Your task to perform on an android device: Do I have any events this weekend? Image 0: 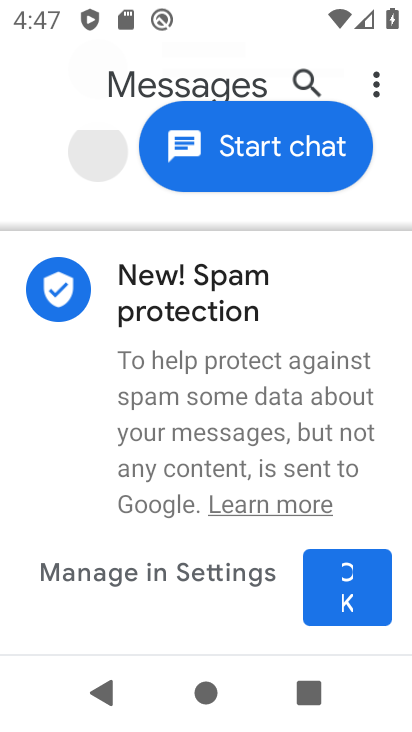
Step 0: press back button
Your task to perform on an android device: Do I have any events this weekend? Image 1: 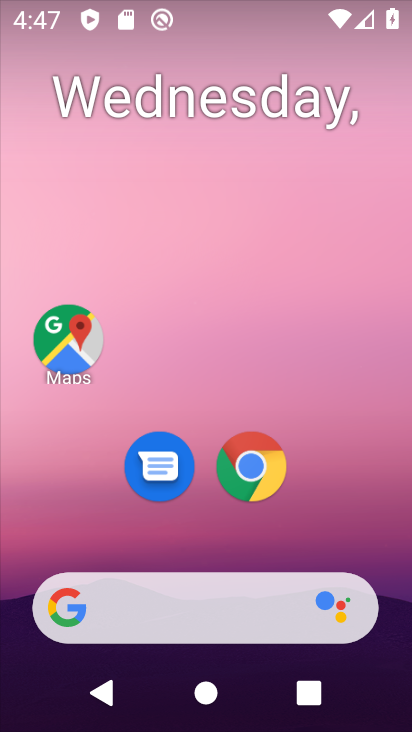
Step 1: drag from (341, 521) to (272, 26)
Your task to perform on an android device: Do I have any events this weekend? Image 2: 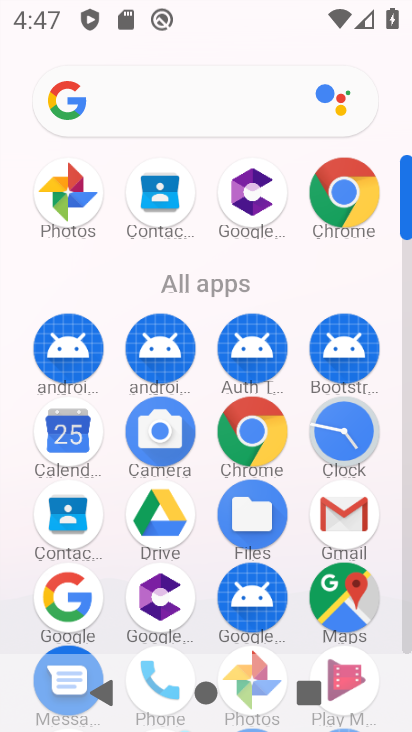
Step 2: drag from (18, 593) to (17, 306)
Your task to perform on an android device: Do I have any events this weekend? Image 3: 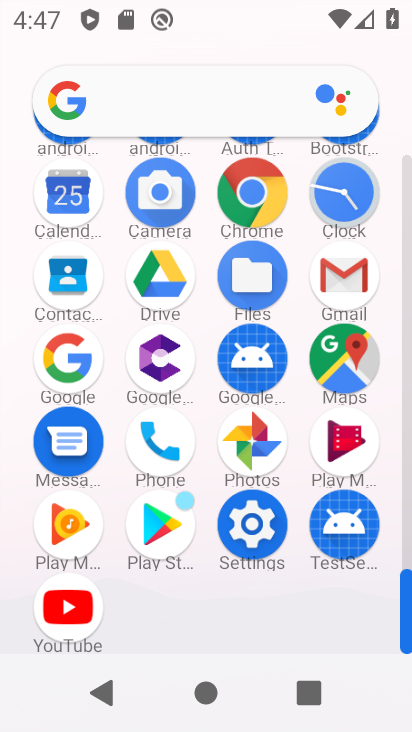
Step 3: drag from (12, 205) to (8, 566)
Your task to perform on an android device: Do I have any events this weekend? Image 4: 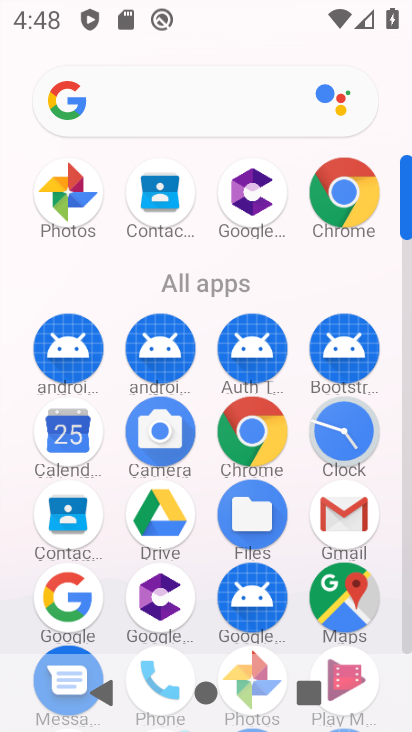
Step 4: click (72, 423)
Your task to perform on an android device: Do I have any events this weekend? Image 5: 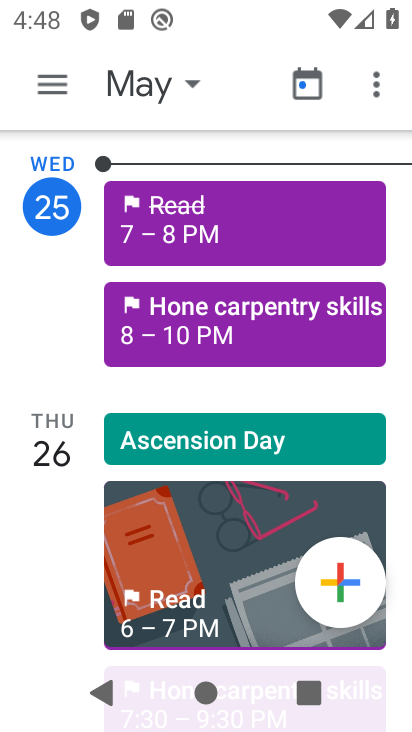
Step 5: click (138, 85)
Your task to perform on an android device: Do I have any events this weekend? Image 6: 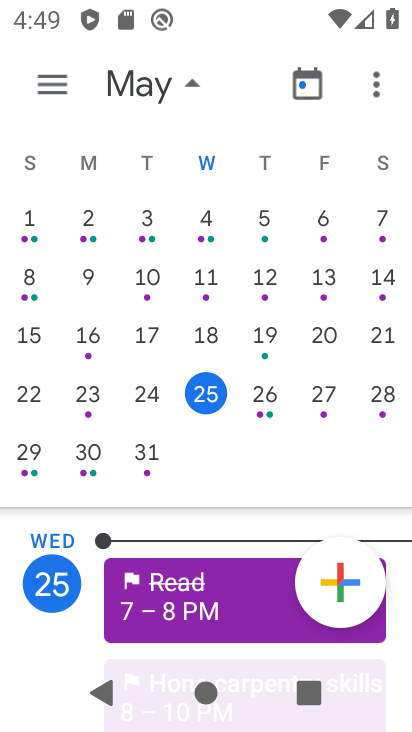
Step 6: click (374, 204)
Your task to perform on an android device: Do I have any events this weekend? Image 7: 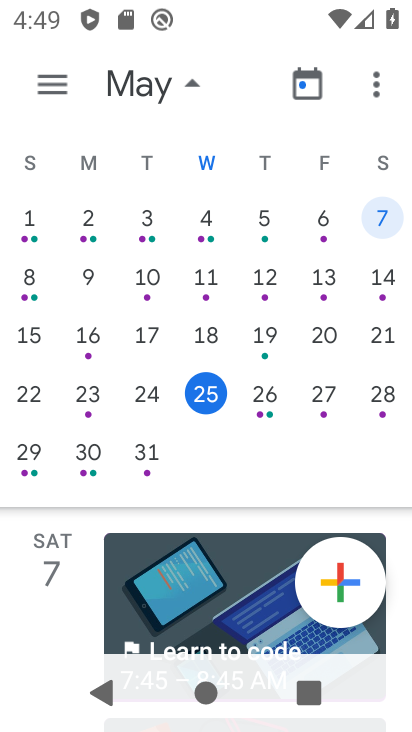
Step 7: click (381, 402)
Your task to perform on an android device: Do I have any events this weekend? Image 8: 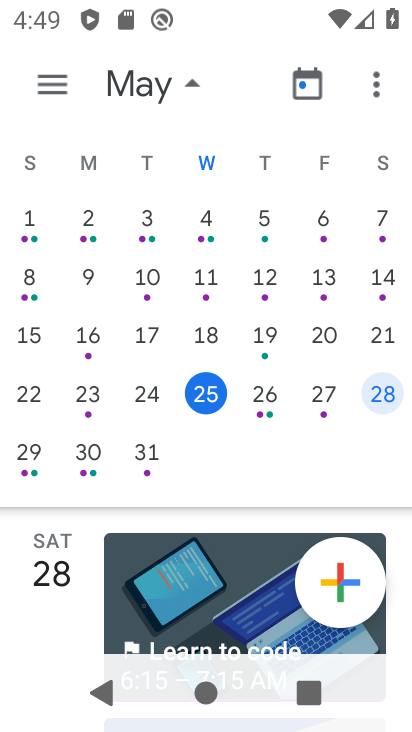
Step 8: click (46, 73)
Your task to perform on an android device: Do I have any events this weekend? Image 9: 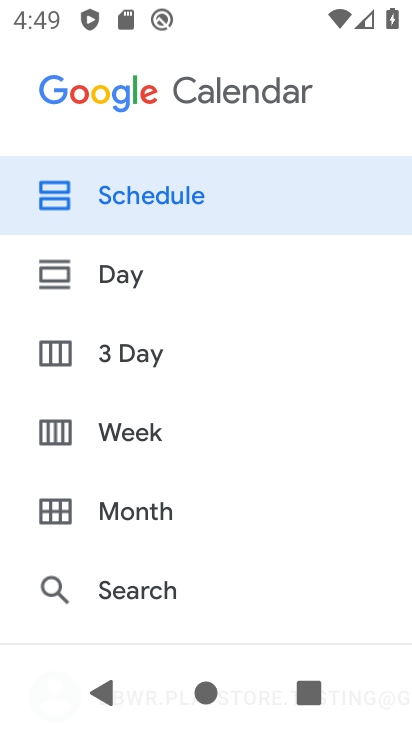
Step 9: click (144, 173)
Your task to perform on an android device: Do I have any events this weekend? Image 10: 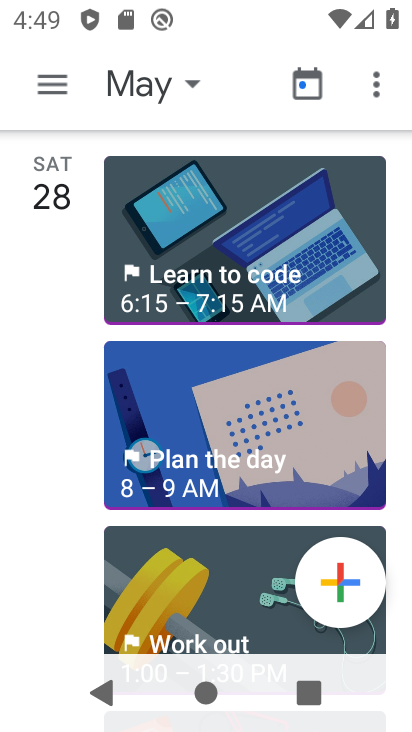
Step 10: task complete